Your task to perform on an android device: Open display settings Image 0: 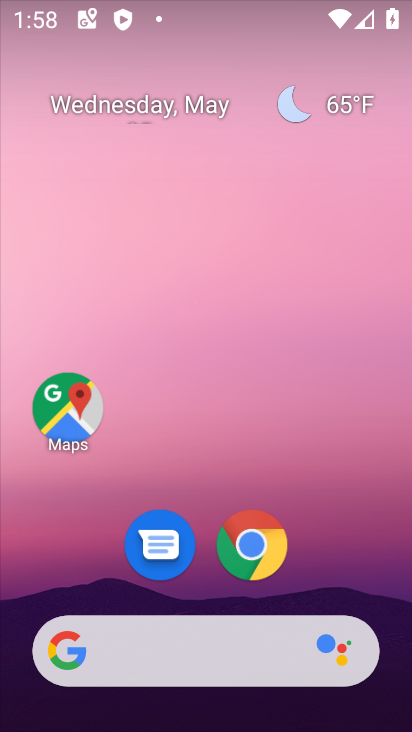
Step 0: press home button
Your task to perform on an android device: Open display settings Image 1: 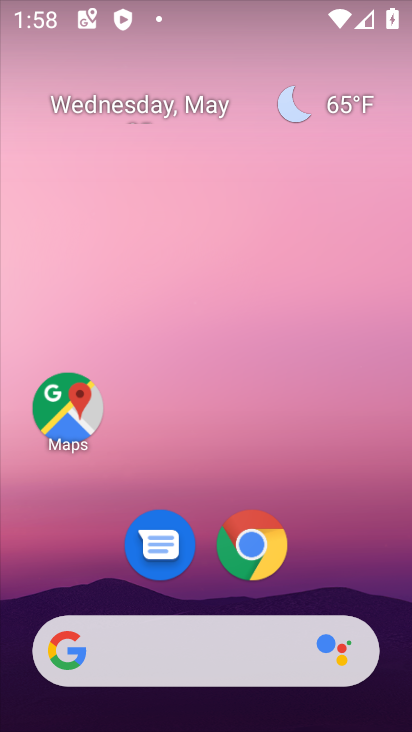
Step 1: drag from (263, 264) to (181, 0)
Your task to perform on an android device: Open display settings Image 2: 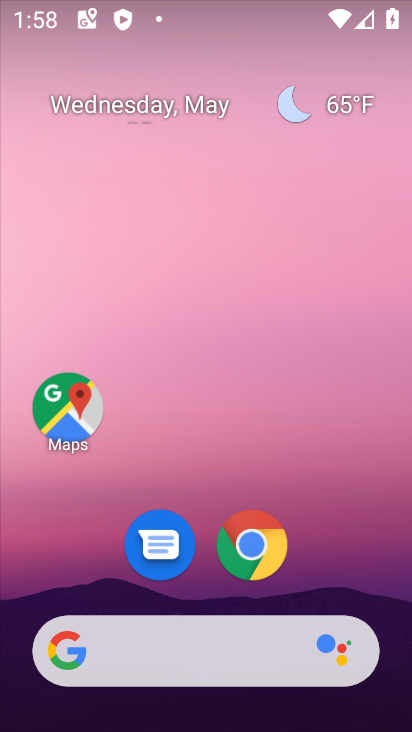
Step 2: drag from (220, 477) to (191, 0)
Your task to perform on an android device: Open display settings Image 3: 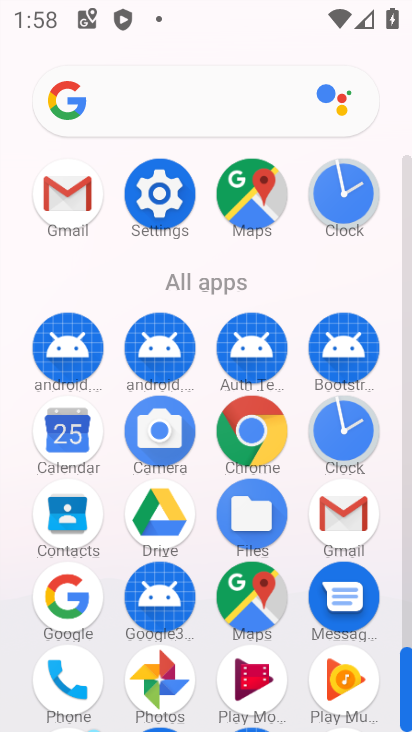
Step 3: click (145, 202)
Your task to perform on an android device: Open display settings Image 4: 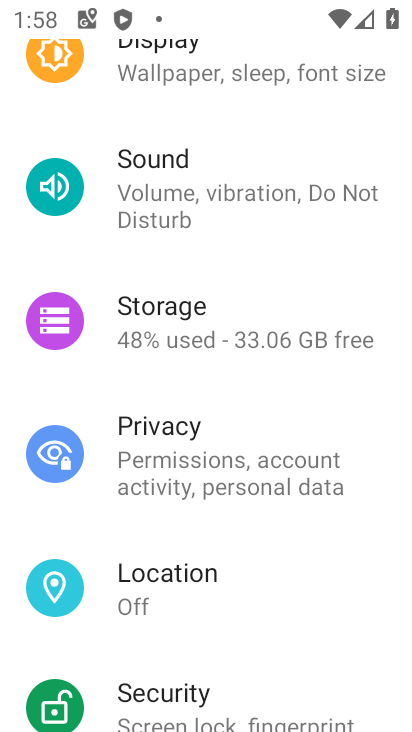
Step 4: click (242, 74)
Your task to perform on an android device: Open display settings Image 5: 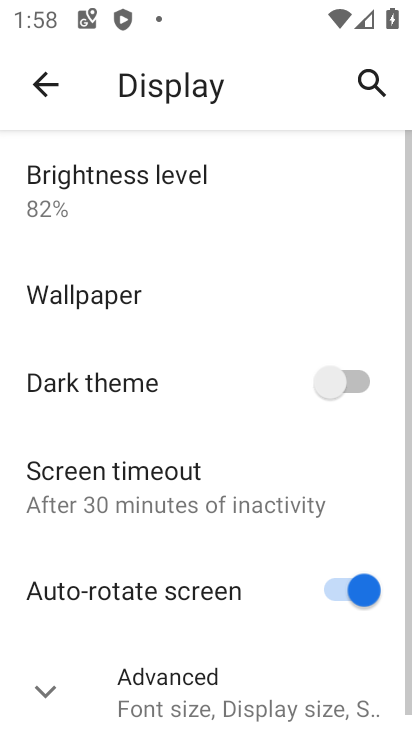
Step 5: task complete